Your task to perform on an android device: What is the recent news? Image 0: 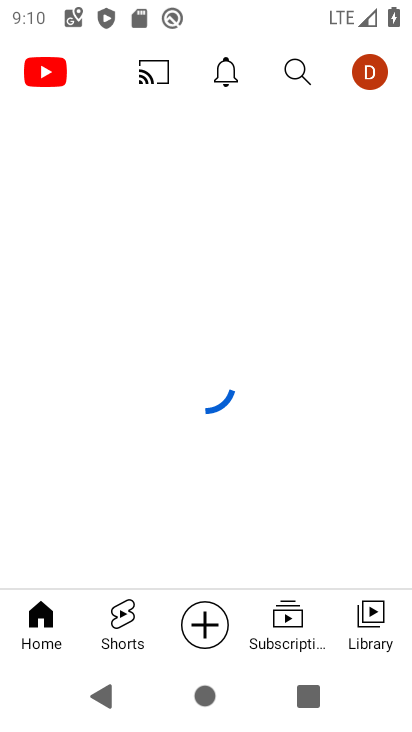
Step 0: press back button
Your task to perform on an android device: What is the recent news? Image 1: 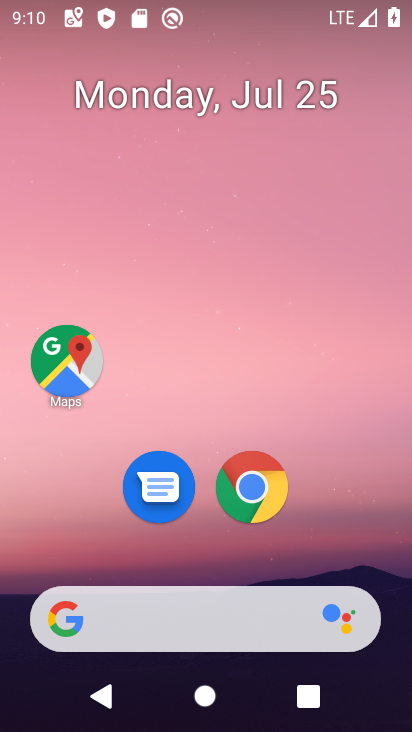
Step 1: click (153, 609)
Your task to perform on an android device: What is the recent news? Image 2: 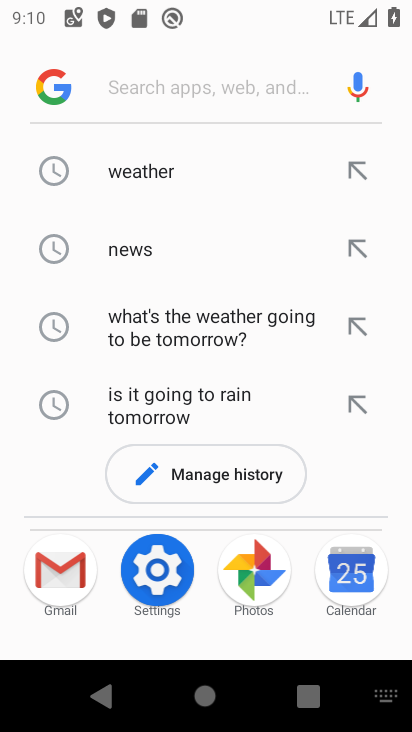
Step 2: click (188, 99)
Your task to perform on an android device: What is the recent news? Image 3: 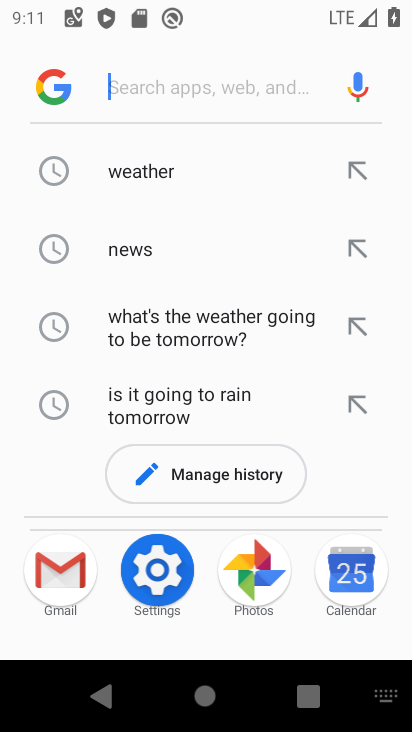
Step 3: type "recent news"
Your task to perform on an android device: What is the recent news? Image 4: 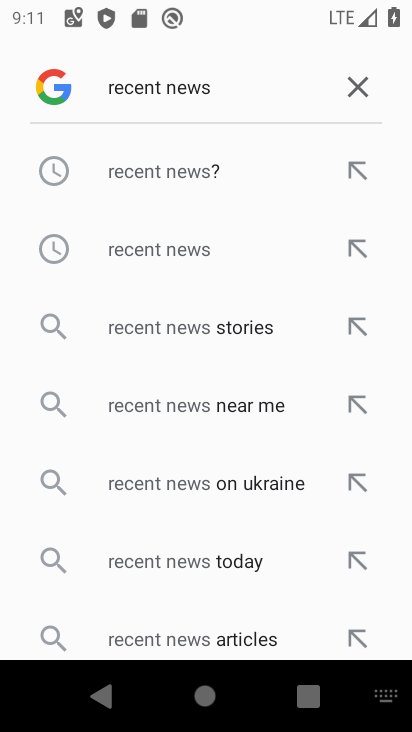
Step 4: click (183, 165)
Your task to perform on an android device: What is the recent news? Image 5: 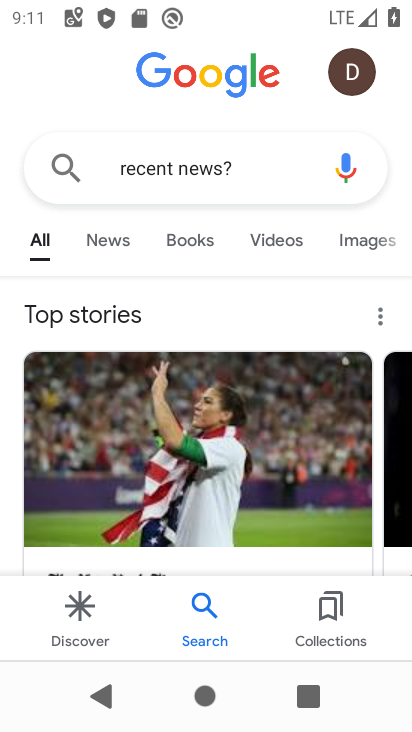
Step 5: task complete